Your task to perform on an android device: Open Reddit.com Image 0: 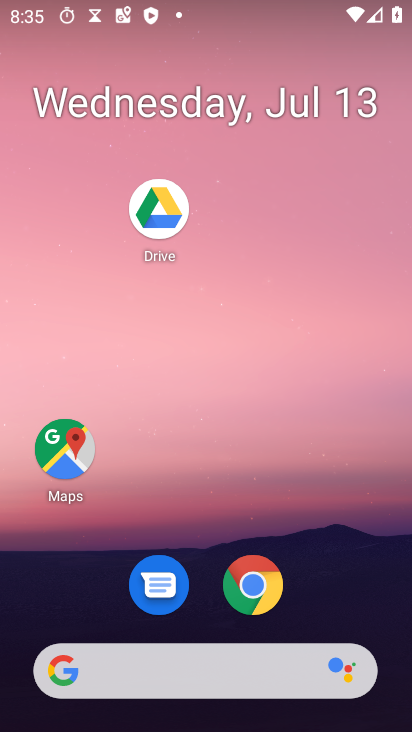
Step 0: click (238, 603)
Your task to perform on an android device: Open Reddit.com Image 1: 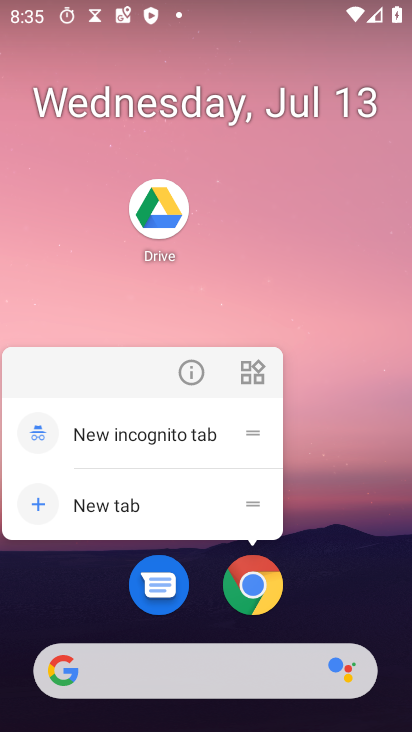
Step 1: click (264, 583)
Your task to perform on an android device: Open Reddit.com Image 2: 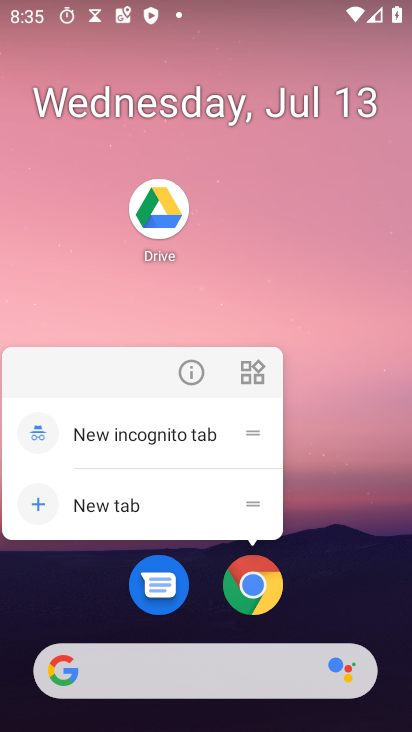
Step 2: click (264, 583)
Your task to perform on an android device: Open Reddit.com Image 3: 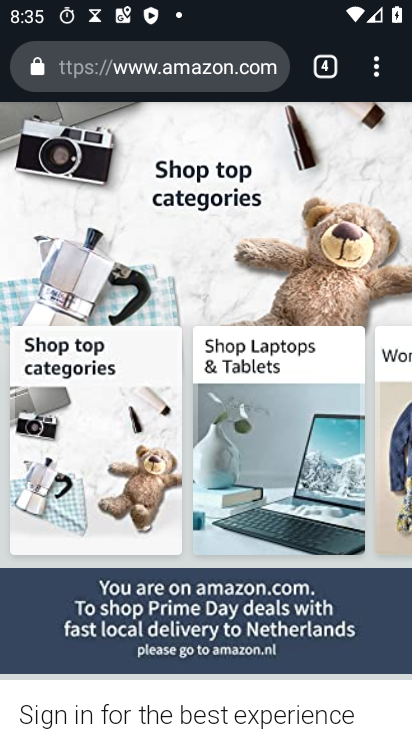
Step 3: drag from (367, 76) to (205, 117)
Your task to perform on an android device: Open Reddit.com Image 4: 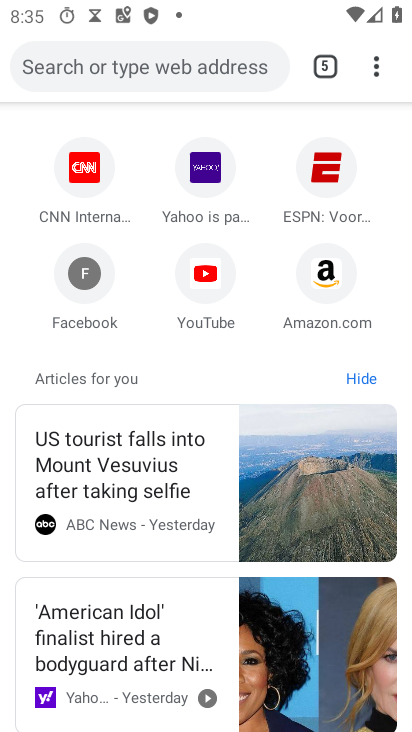
Step 4: click (161, 58)
Your task to perform on an android device: Open Reddit.com Image 5: 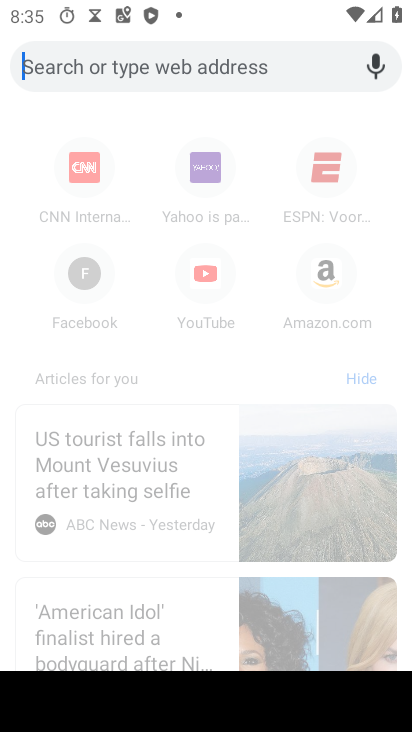
Step 5: type "reddit.com"
Your task to perform on an android device: Open Reddit.com Image 6: 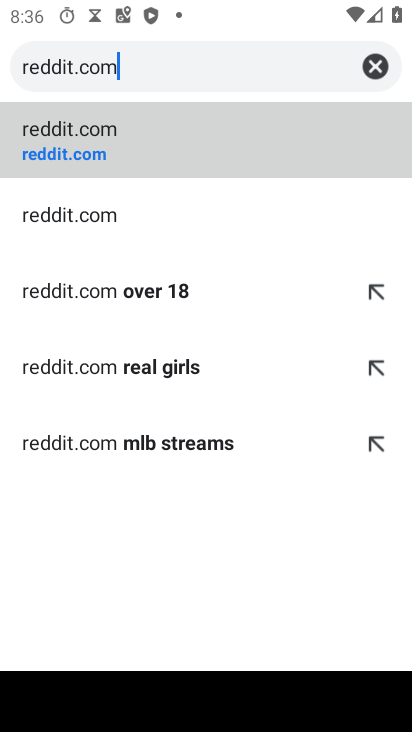
Step 6: click (179, 149)
Your task to perform on an android device: Open Reddit.com Image 7: 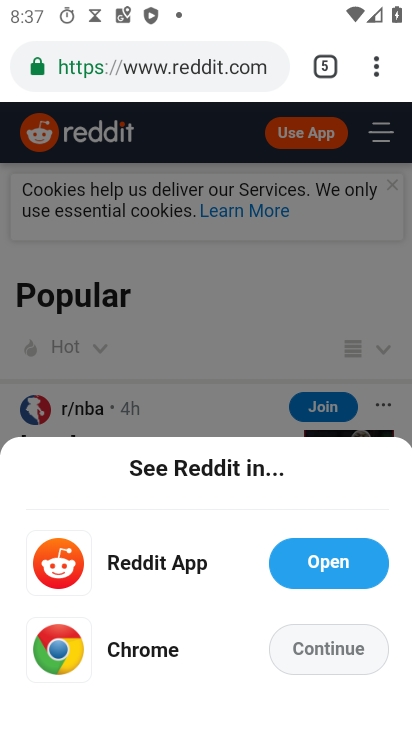
Step 7: task complete